Your task to perform on an android device: Open Chrome and go to settings Image 0: 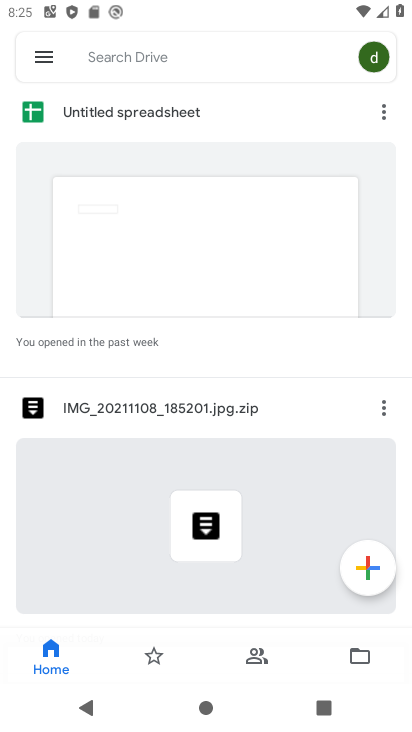
Step 0: press home button
Your task to perform on an android device: Open Chrome and go to settings Image 1: 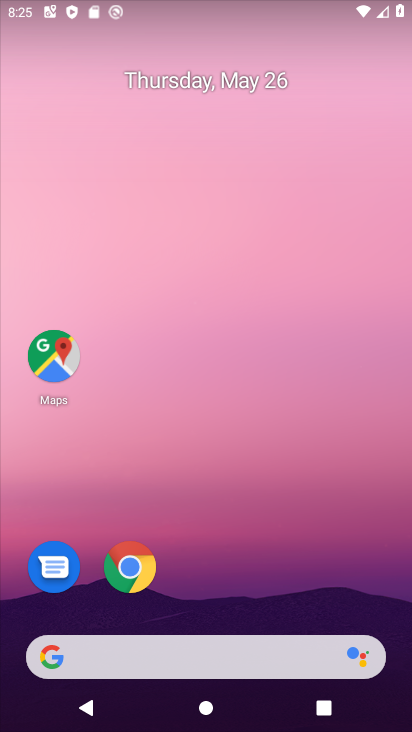
Step 1: click (135, 566)
Your task to perform on an android device: Open Chrome and go to settings Image 2: 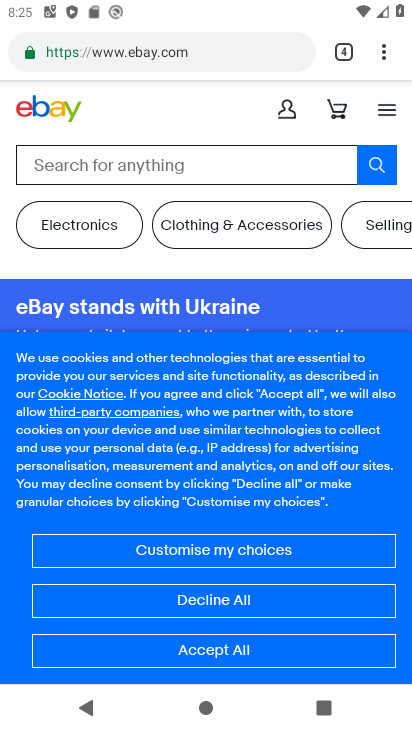
Step 2: task complete